Your task to perform on an android device: Open the Play Movies app and select the watchlist tab. Image 0: 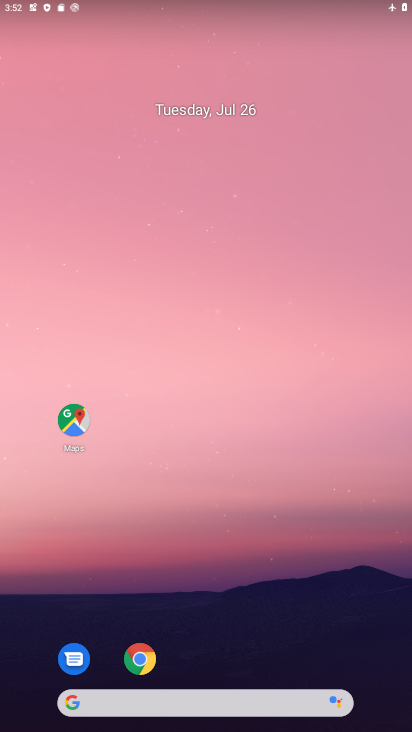
Step 0: drag from (235, 679) to (337, 171)
Your task to perform on an android device: Open the Play Movies app and select the watchlist tab. Image 1: 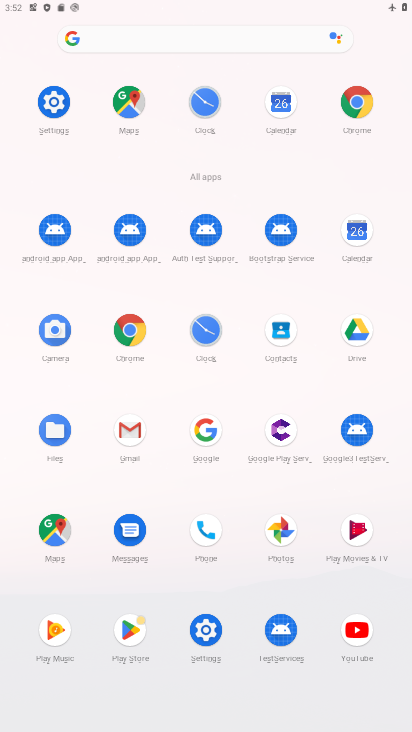
Step 1: click (362, 528)
Your task to perform on an android device: Open the Play Movies app and select the watchlist tab. Image 2: 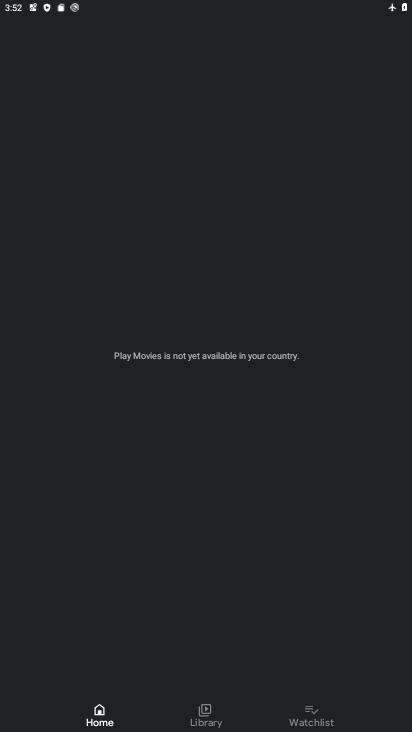
Step 2: click (320, 722)
Your task to perform on an android device: Open the Play Movies app and select the watchlist tab. Image 3: 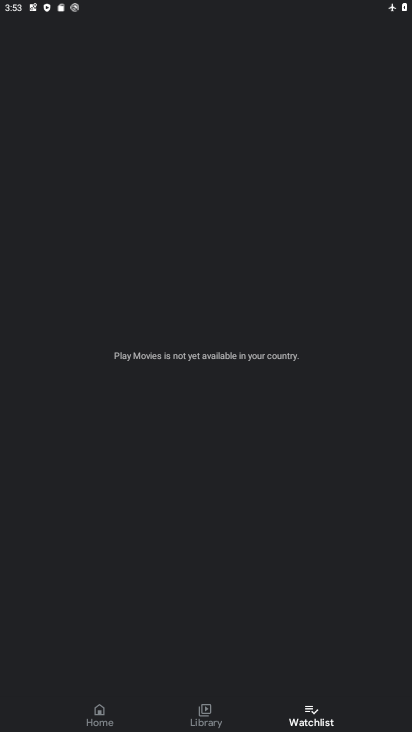
Step 3: task complete